Your task to perform on an android device: Go to internet settings Image 0: 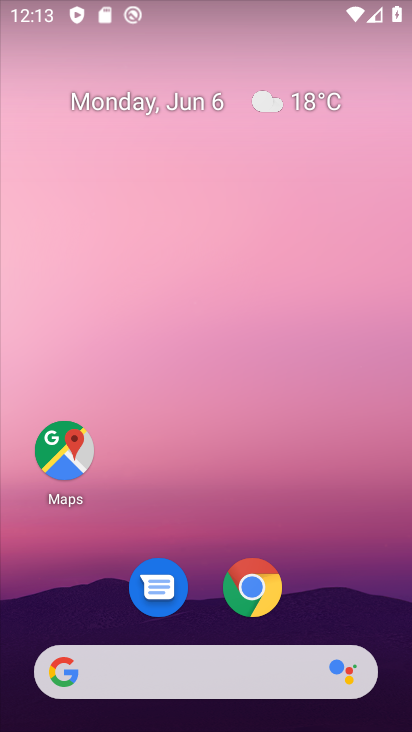
Step 0: drag from (297, 570) to (291, 165)
Your task to perform on an android device: Go to internet settings Image 1: 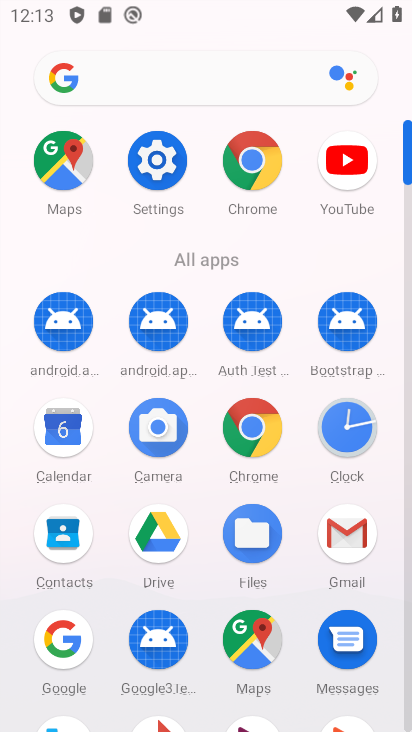
Step 1: click (151, 170)
Your task to perform on an android device: Go to internet settings Image 2: 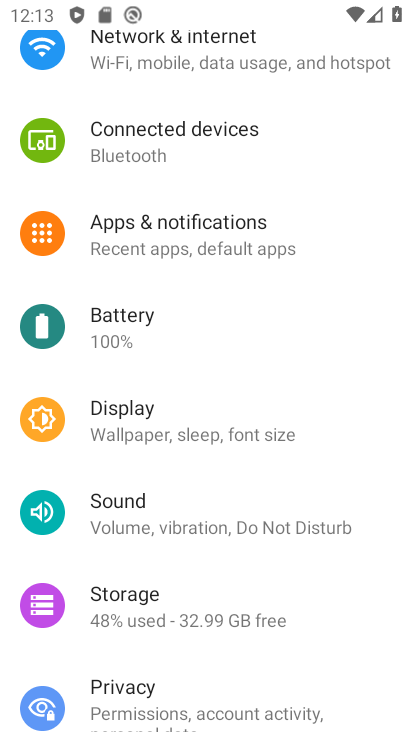
Step 2: drag from (244, 139) to (252, 463)
Your task to perform on an android device: Go to internet settings Image 3: 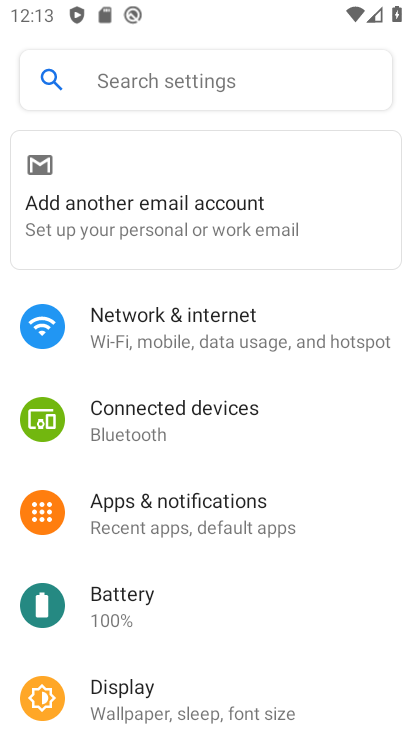
Step 3: click (197, 342)
Your task to perform on an android device: Go to internet settings Image 4: 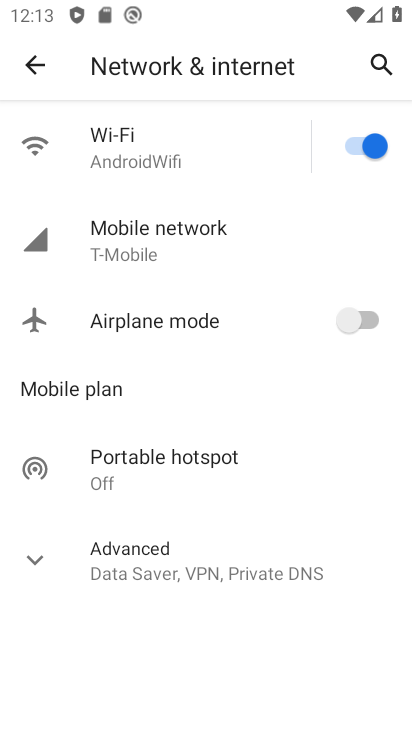
Step 4: task complete